Your task to perform on an android device: Do I have any events tomorrow? Image 0: 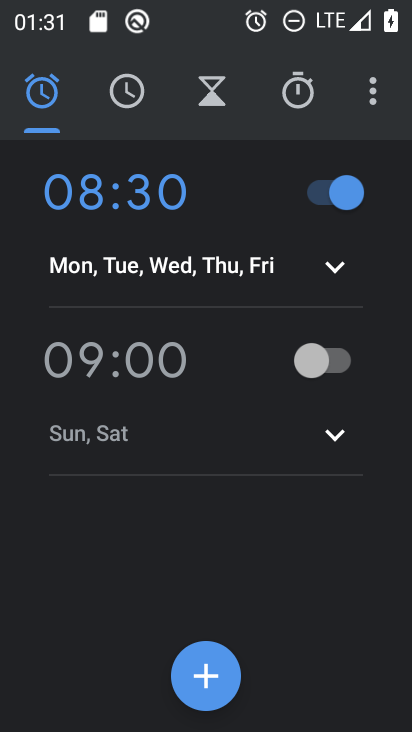
Step 0: press home button
Your task to perform on an android device: Do I have any events tomorrow? Image 1: 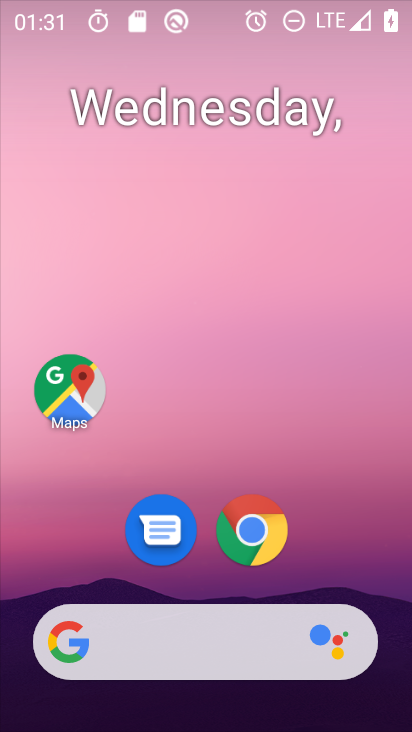
Step 1: drag from (217, 677) to (280, 2)
Your task to perform on an android device: Do I have any events tomorrow? Image 2: 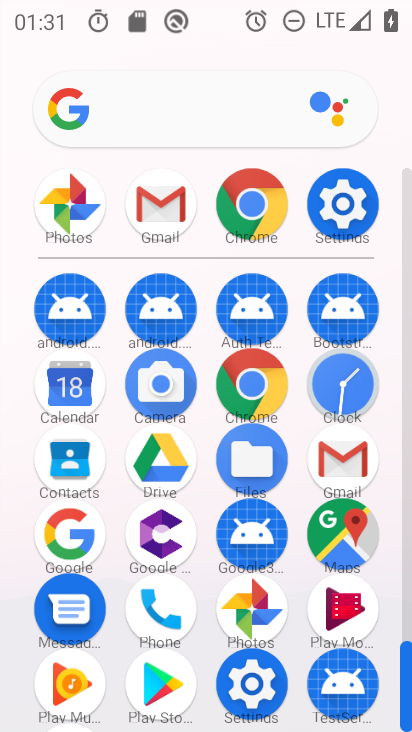
Step 2: click (65, 383)
Your task to perform on an android device: Do I have any events tomorrow? Image 3: 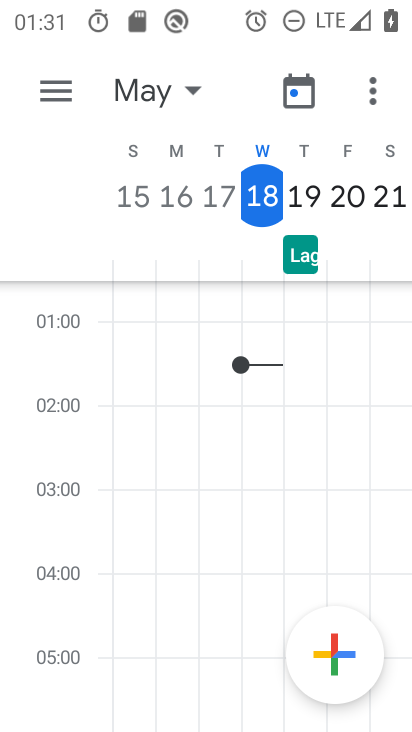
Step 3: click (190, 95)
Your task to perform on an android device: Do I have any events tomorrow? Image 4: 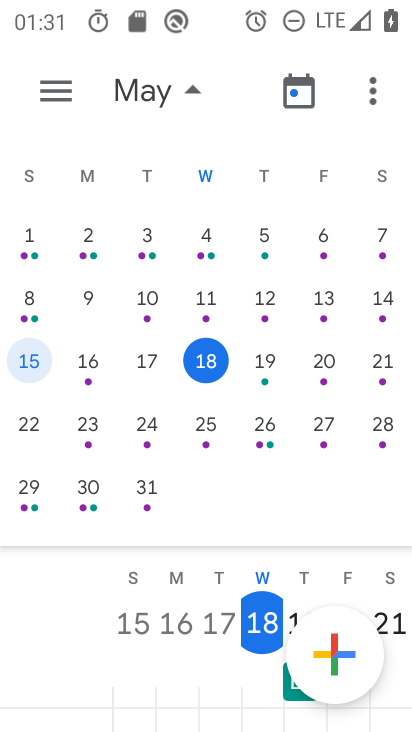
Step 4: click (265, 364)
Your task to perform on an android device: Do I have any events tomorrow? Image 5: 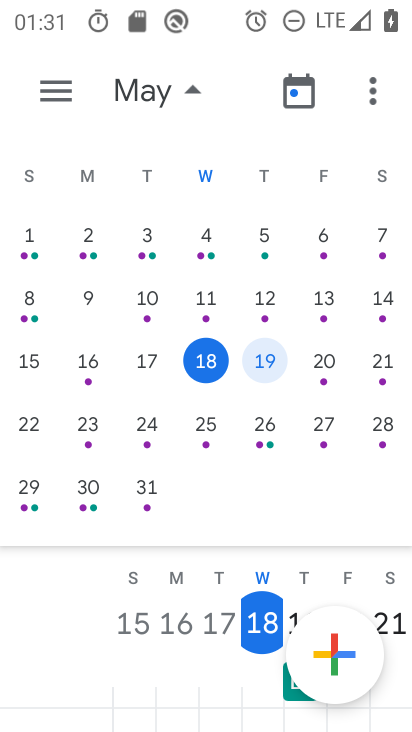
Step 5: task complete